Your task to perform on an android device: Go to eBay Image 0: 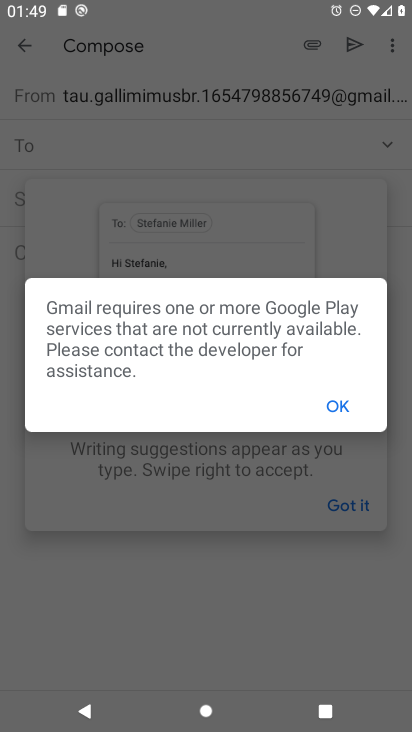
Step 0: click (336, 406)
Your task to perform on an android device: Go to eBay Image 1: 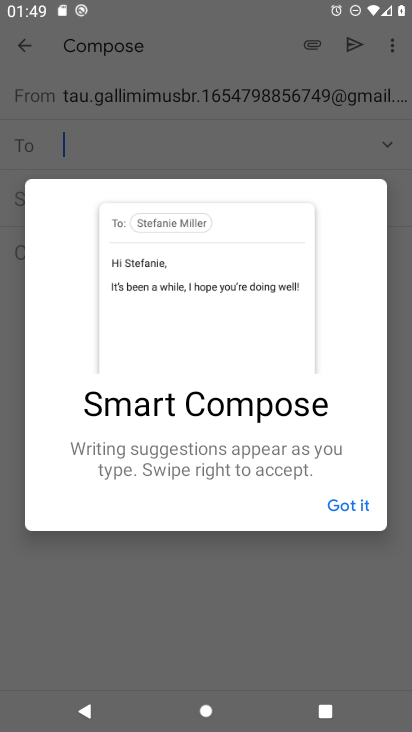
Step 1: press home button
Your task to perform on an android device: Go to eBay Image 2: 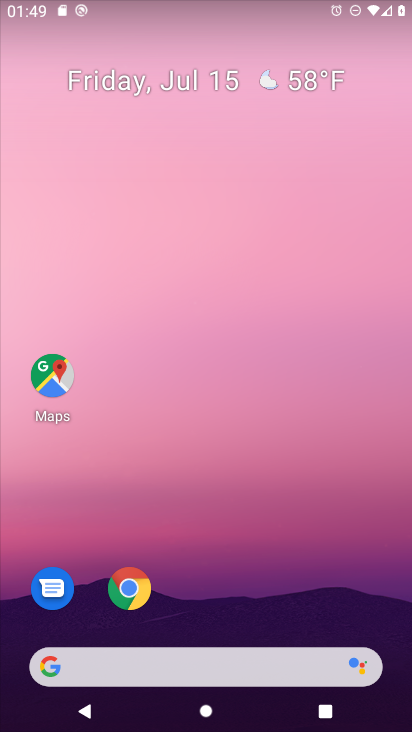
Step 2: click (126, 593)
Your task to perform on an android device: Go to eBay Image 3: 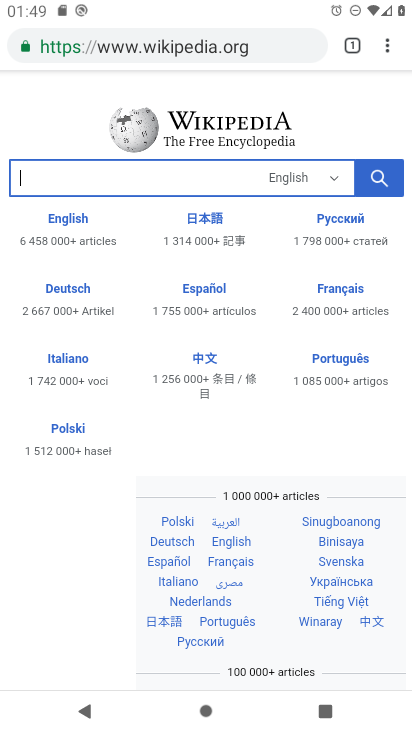
Step 3: click (269, 51)
Your task to perform on an android device: Go to eBay Image 4: 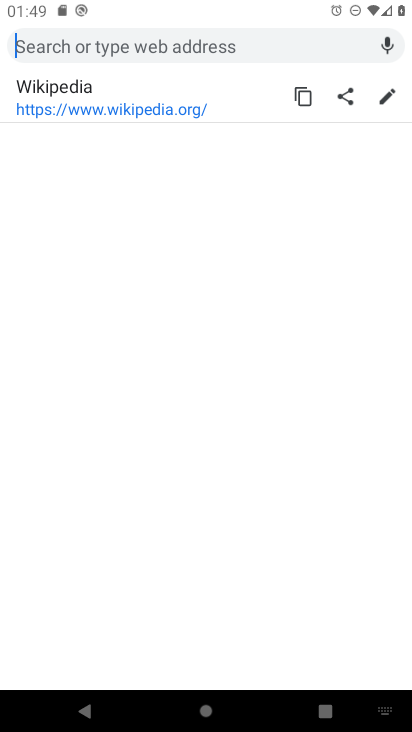
Step 4: type "eBay"
Your task to perform on an android device: Go to eBay Image 5: 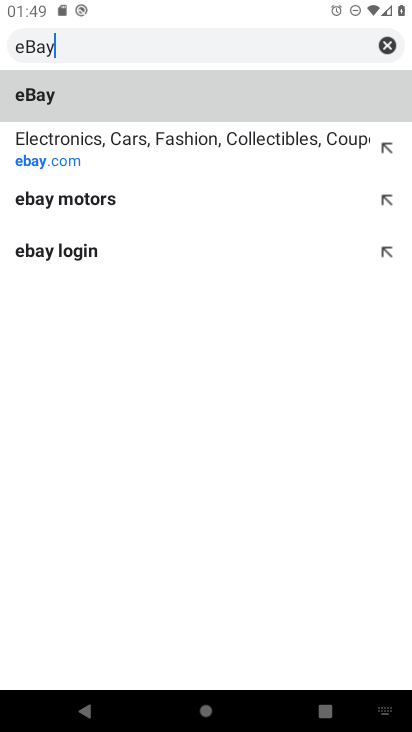
Step 5: click (49, 108)
Your task to perform on an android device: Go to eBay Image 6: 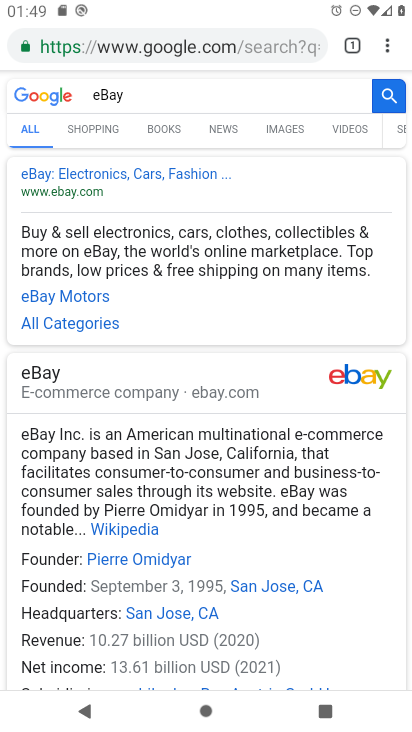
Step 6: click (74, 176)
Your task to perform on an android device: Go to eBay Image 7: 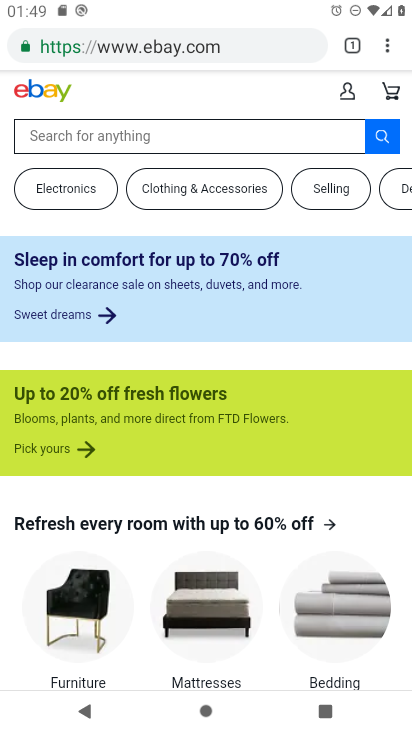
Step 7: task complete